Your task to perform on an android device: Open the web browser Image 0: 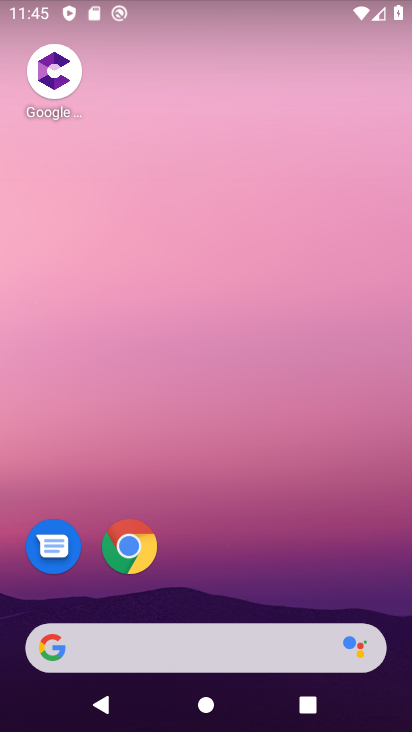
Step 0: drag from (198, 603) to (230, 127)
Your task to perform on an android device: Open the web browser Image 1: 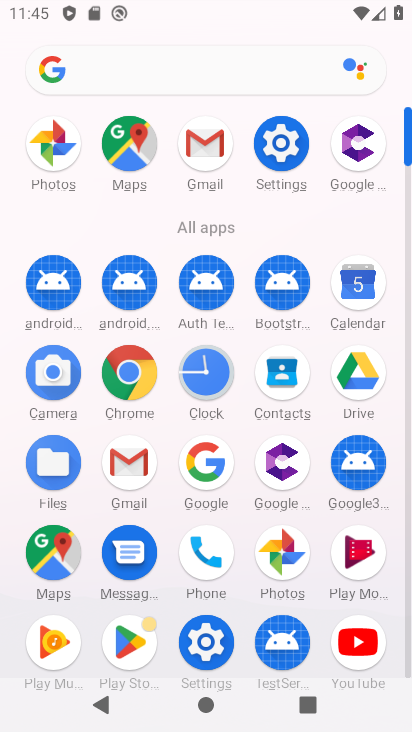
Step 1: click (131, 392)
Your task to perform on an android device: Open the web browser Image 2: 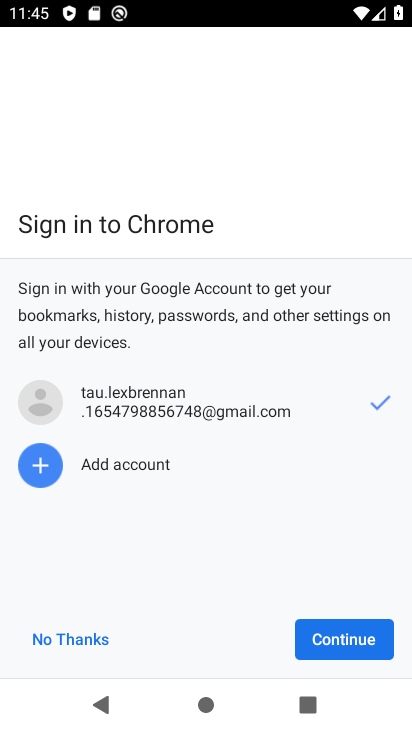
Step 2: click (366, 635)
Your task to perform on an android device: Open the web browser Image 3: 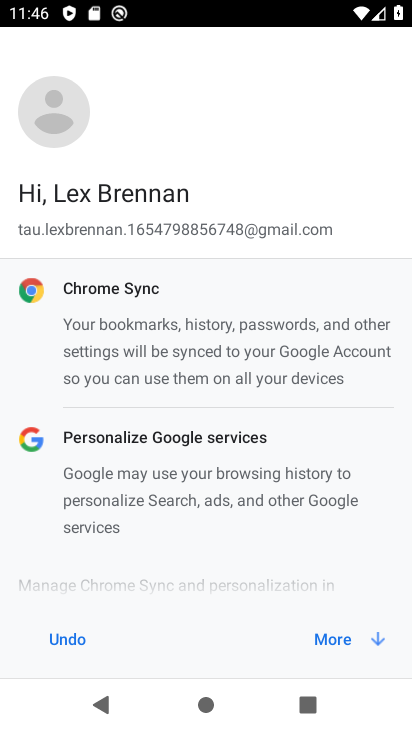
Step 3: click (335, 628)
Your task to perform on an android device: Open the web browser Image 4: 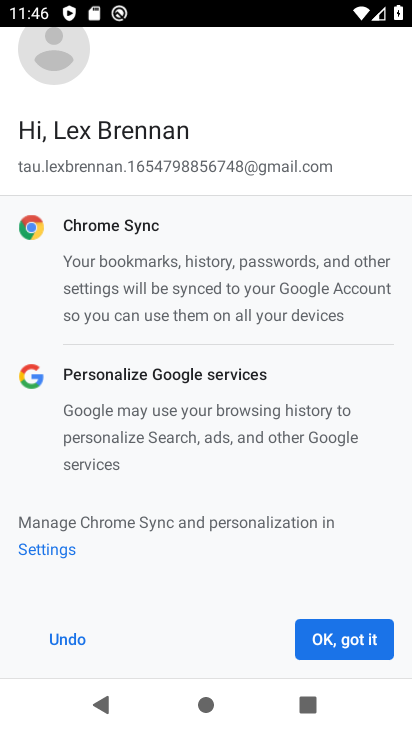
Step 4: click (336, 628)
Your task to perform on an android device: Open the web browser Image 5: 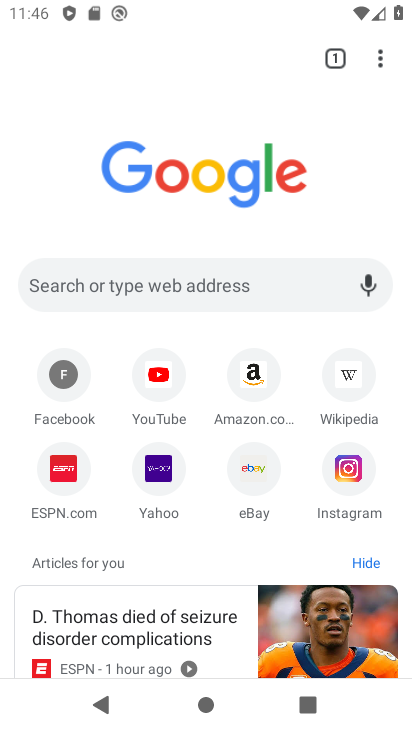
Step 5: task complete